Your task to perform on an android device: toggle translation in the chrome app Image 0: 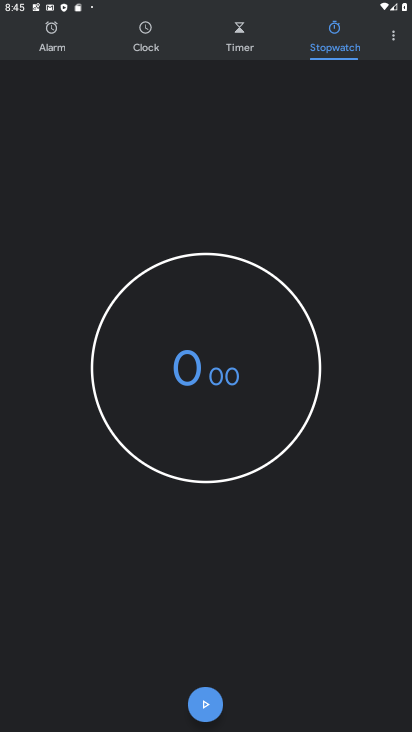
Step 0: press home button
Your task to perform on an android device: toggle translation in the chrome app Image 1: 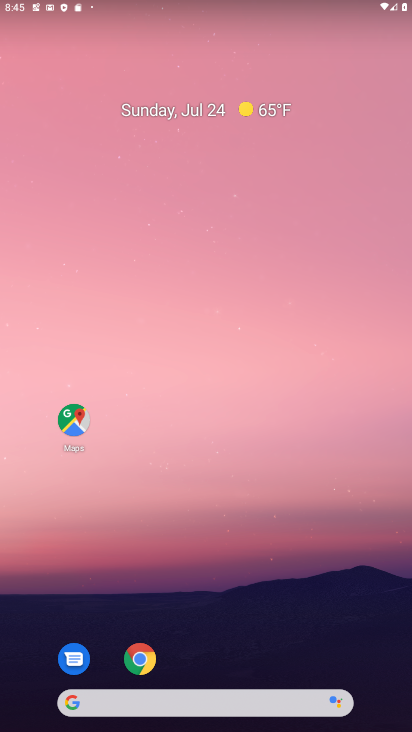
Step 1: click (142, 660)
Your task to perform on an android device: toggle translation in the chrome app Image 2: 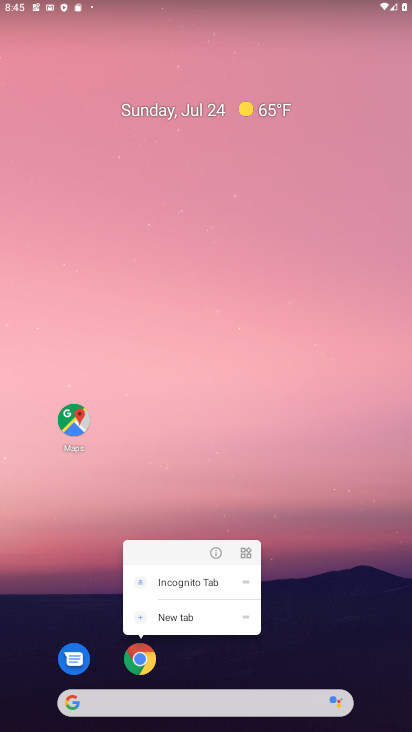
Step 2: click (142, 661)
Your task to perform on an android device: toggle translation in the chrome app Image 3: 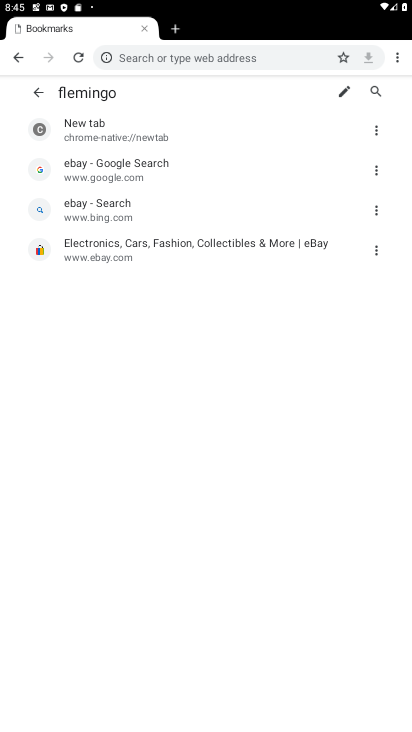
Step 3: click (397, 52)
Your task to perform on an android device: toggle translation in the chrome app Image 4: 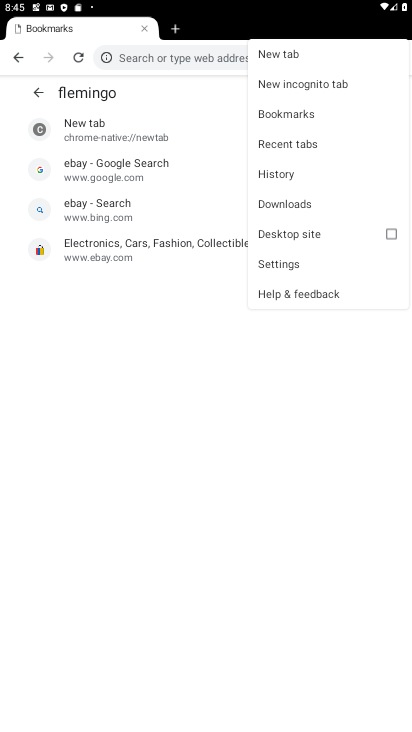
Step 4: click (290, 267)
Your task to perform on an android device: toggle translation in the chrome app Image 5: 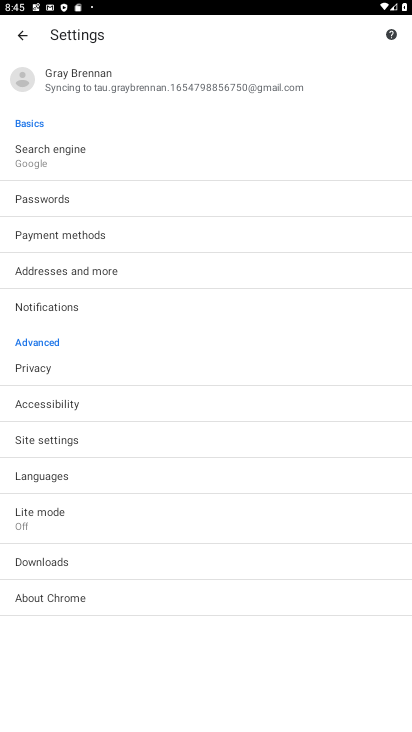
Step 5: click (38, 484)
Your task to perform on an android device: toggle translation in the chrome app Image 6: 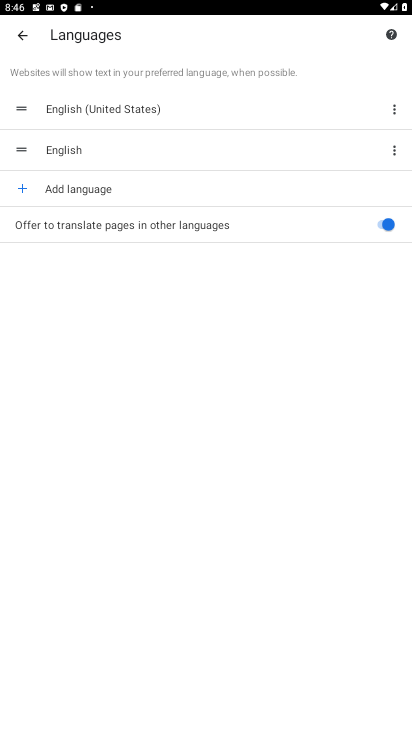
Step 6: click (385, 231)
Your task to perform on an android device: toggle translation in the chrome app Image 7: 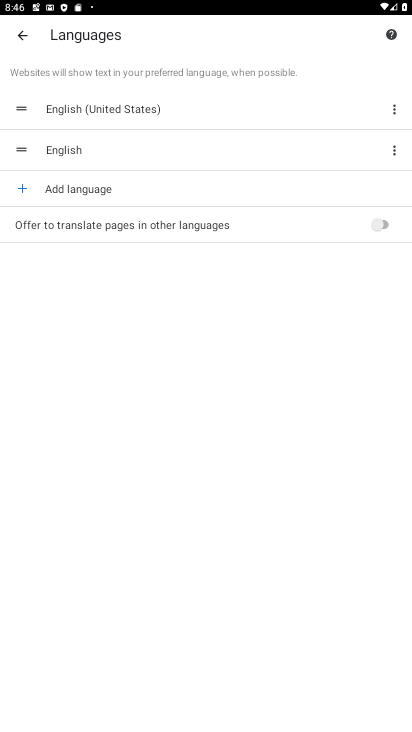
Step 7: task complete